Your task to perform on an android device: View the shopping cart on walmart.com. Image 0: 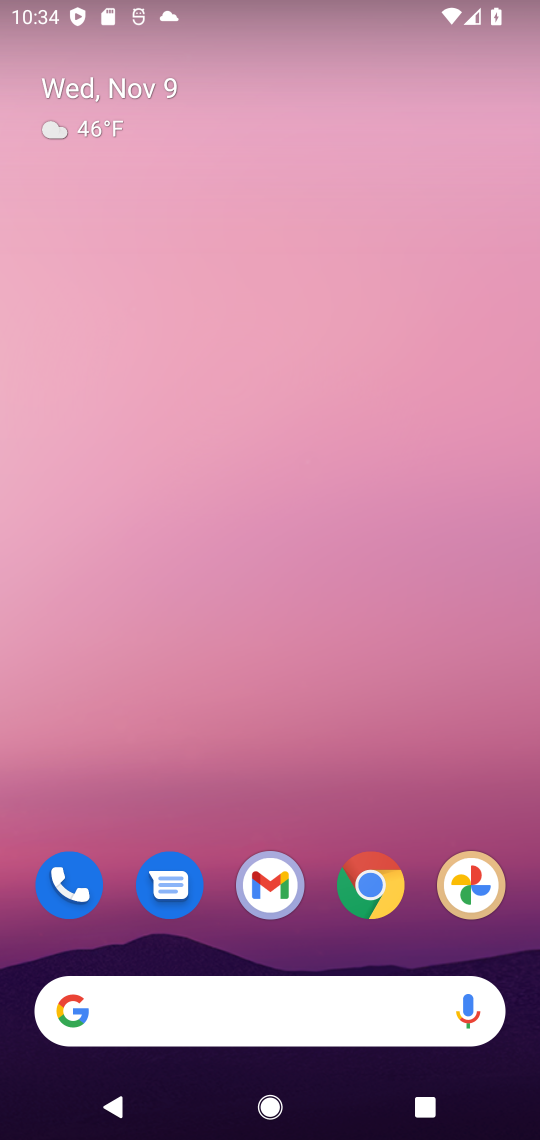
Step 0: click (362, 885)
Your task to perform on an android device: View the shopping cart on walmart.com. Image 1: 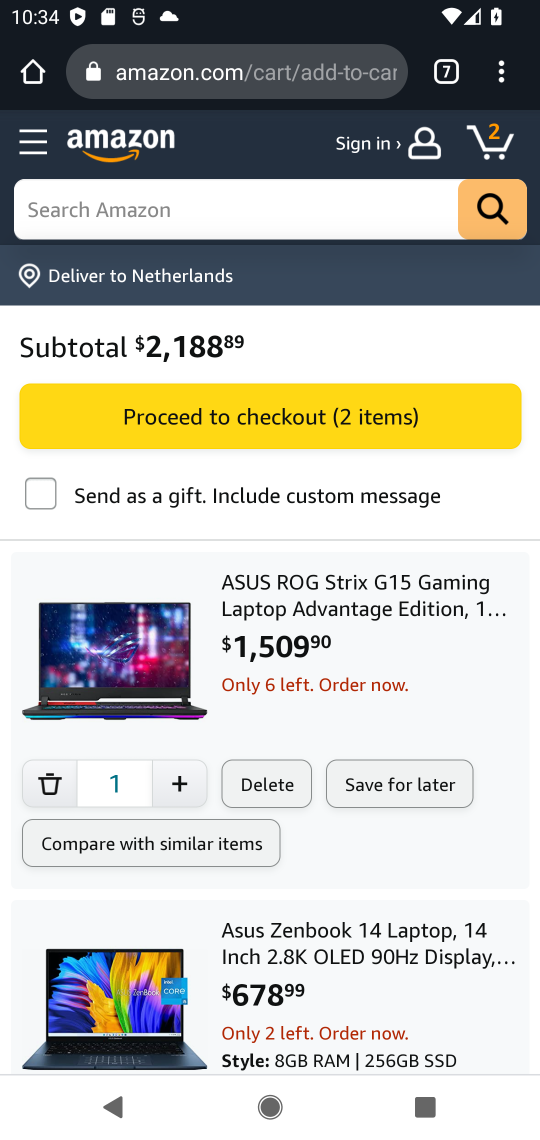
Step 1: click (446, 67)
Your task to perform on an android device: View the shopping cart on walmart.com. Image 2: 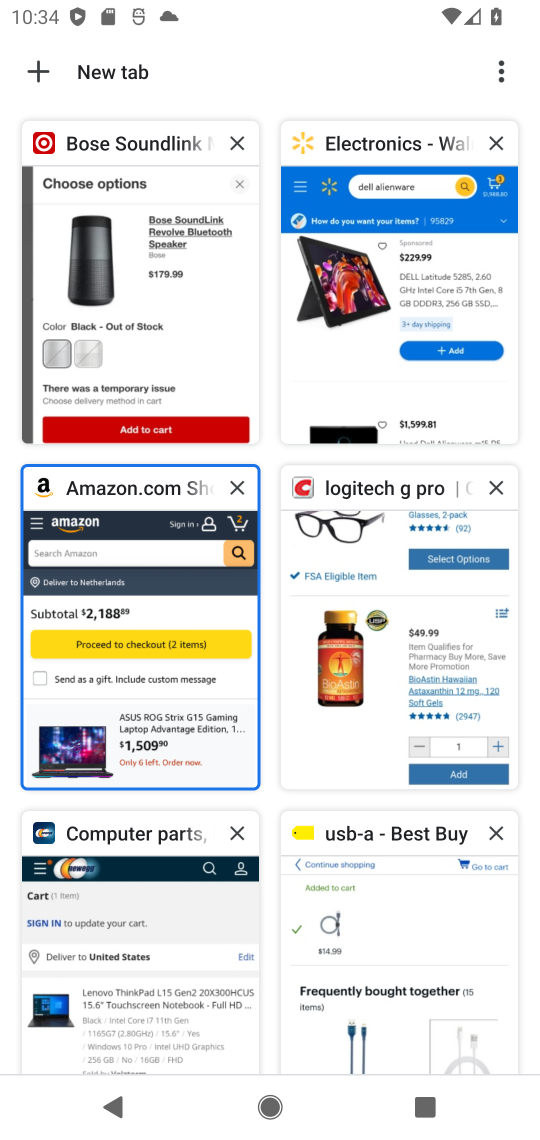
Step 2: click (437, 222)
Your task to perform on an android device: View the shopping cart on walmart.com. Image 3: 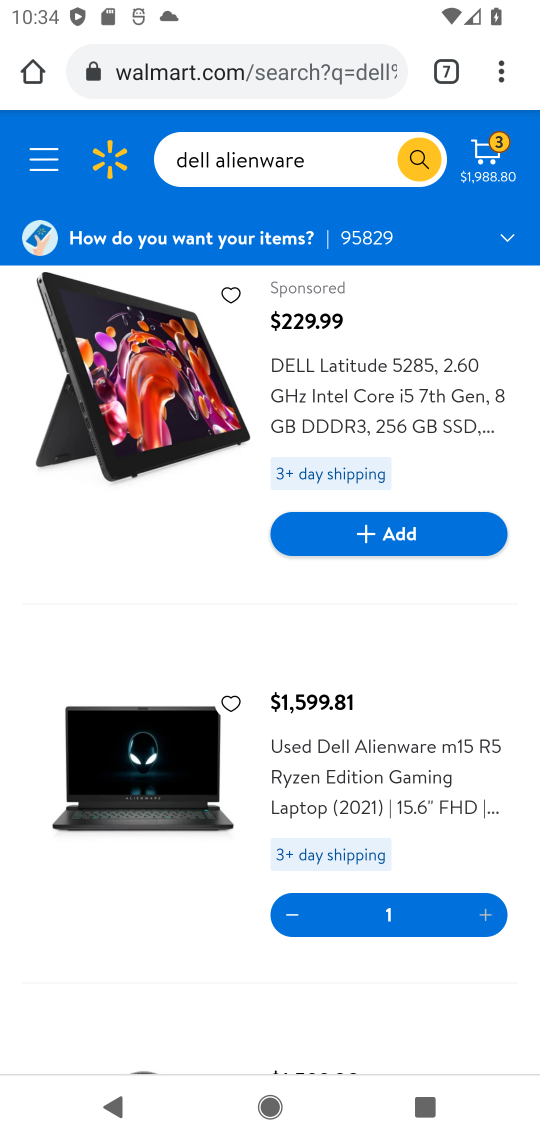
Step 3: click (490, 154)
Your task to perform on an android device: View the shopping cart on walmart.com. Image 4: 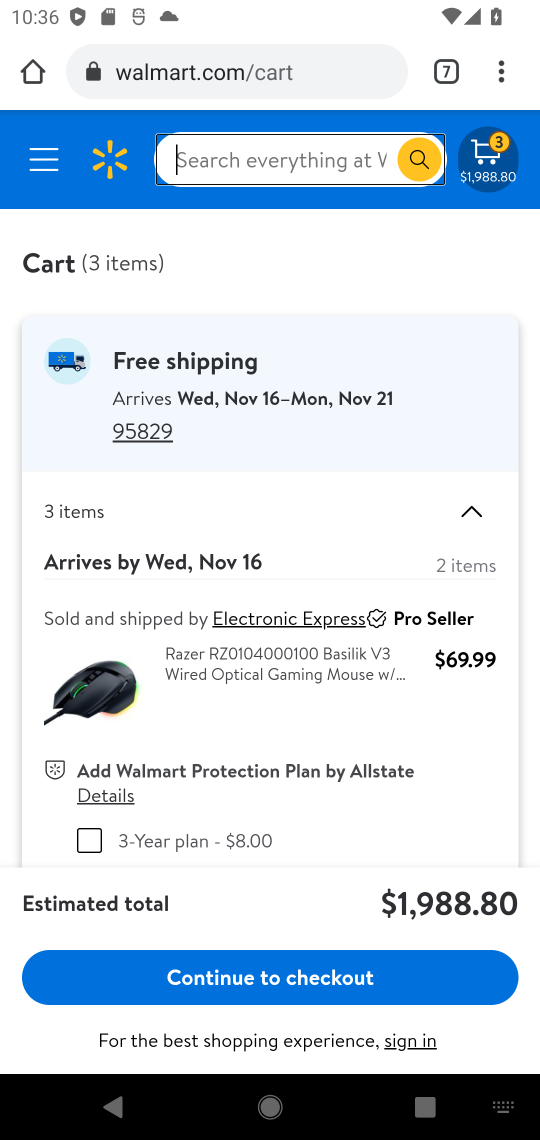
Step 4: task complete